Your task to perform on an android device: What's the weather today? Image 0: 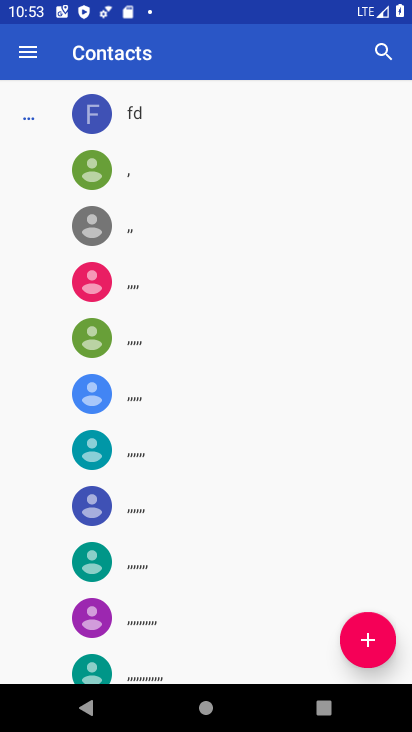
Step 0: press home button
Your task to perform on an android device: What's the weather today? Image 1: 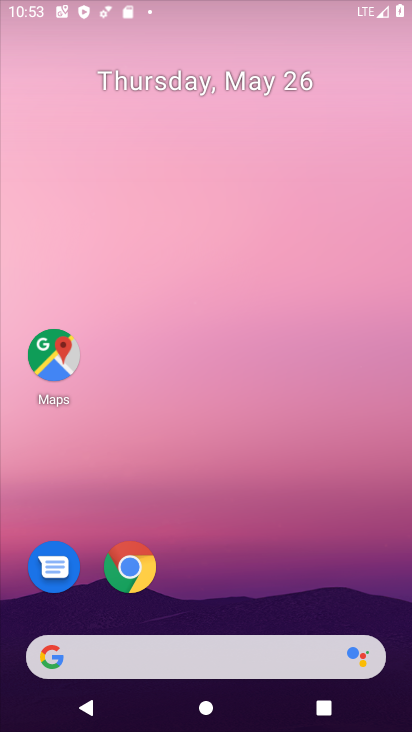
Step 1: click (175, 658)
Your task to perform on an android device: What's the weather today? Image 2: 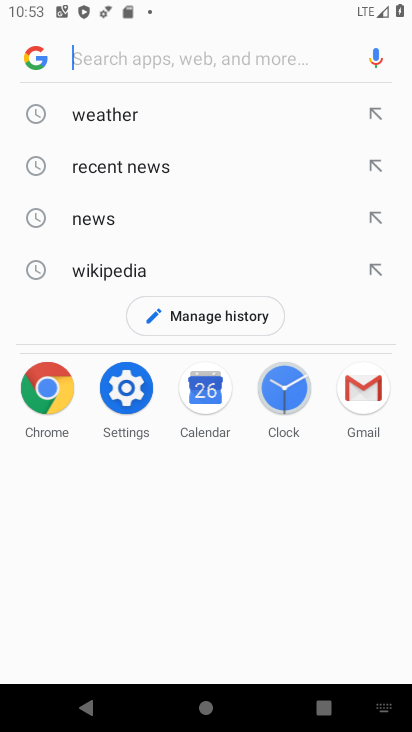
Step 2: type " What's the weather today?"
Your task to perform on an android device: What's the weather today? Image 3: 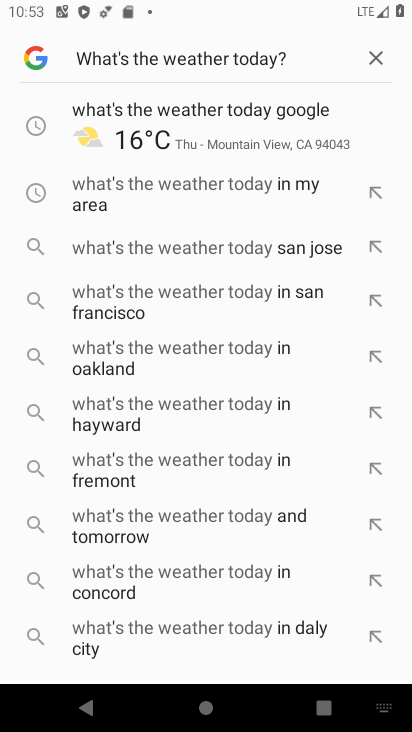
Step 3: click (219, 124)
Your task to perform on an android device: What's the weather today? Image 4: 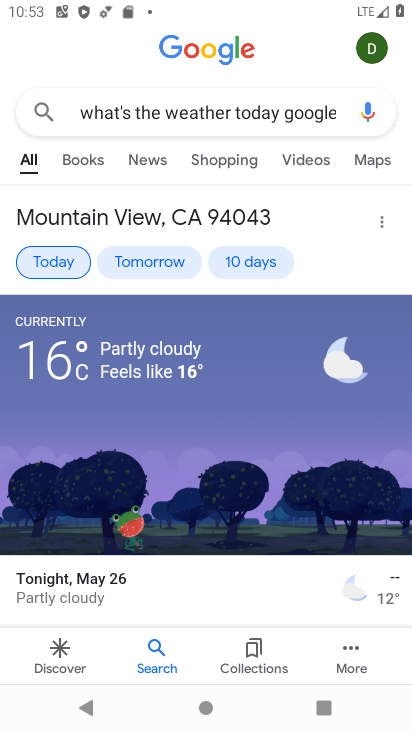
Step 4: task complete